Your task to perform on an android device: Check the weather Image 0: 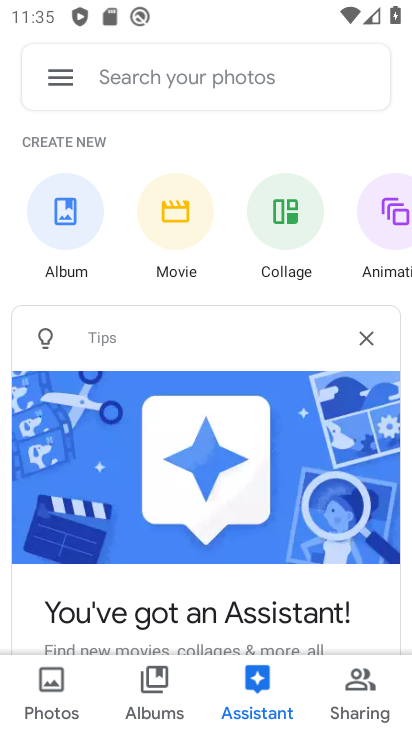
Step 0: press home button
Your task to perform on an android device: Check the weather Image 1: 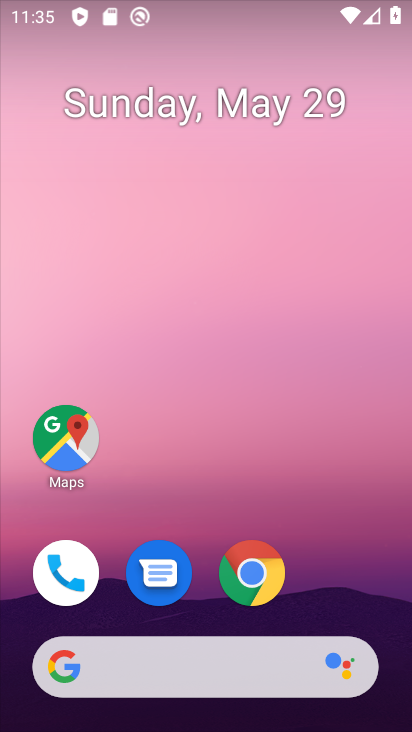
Step 1: click (232, 665)
Your task to perform on an android device: Check the weather Image 2: 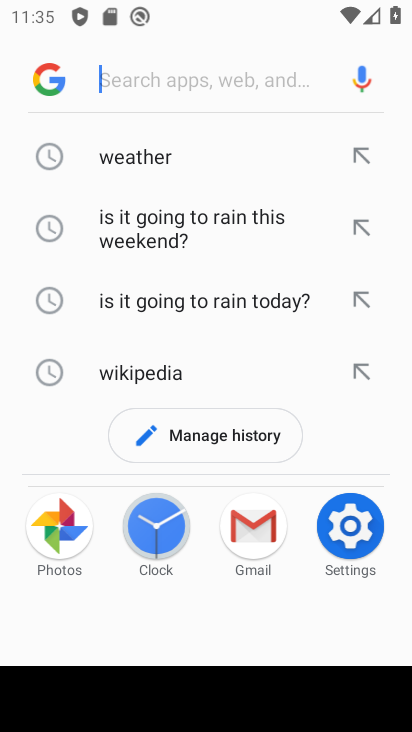
Step 2: click (160, 154)
Your task to perform on an android device: Check the weather Image 3: 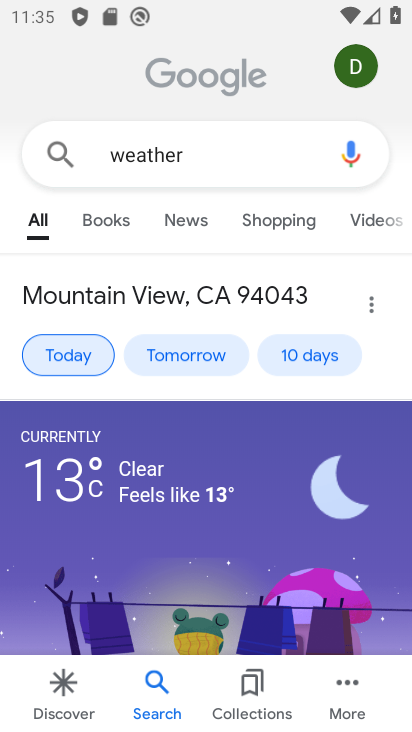
Step 3: task complete